Your task to perform on an android device: turn off improve location accuracy Image 0: 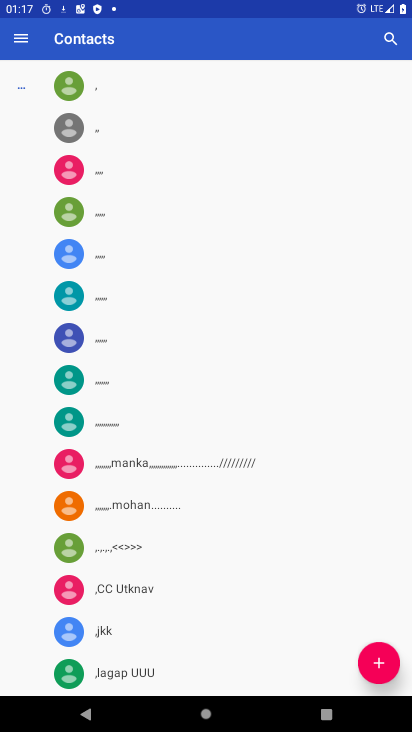
Step 0: press home button
Your task to perform on an android device: turn off improve location accuracy Image 1: 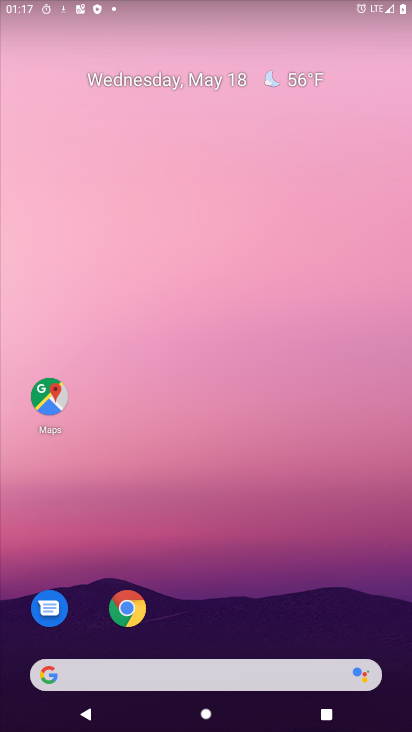
Step 1: drag from (237, 696) to (181, 157)
Your task to perform on an android device: turn off improve location accuracy Image 2: 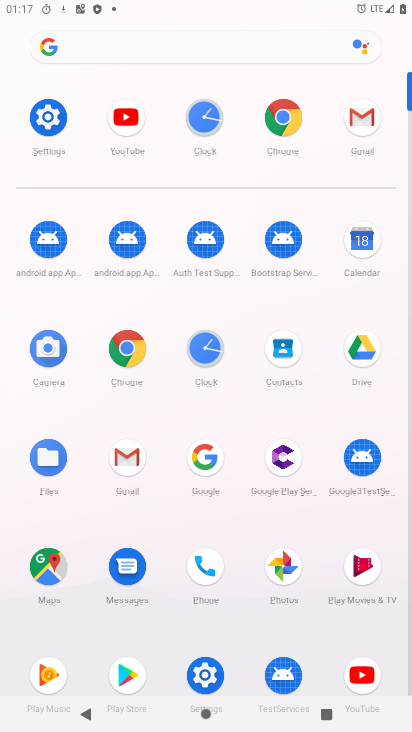
Step 2: click (210, 665)
Your task to perform on an android device: turn off improve location accuracy Image 3: 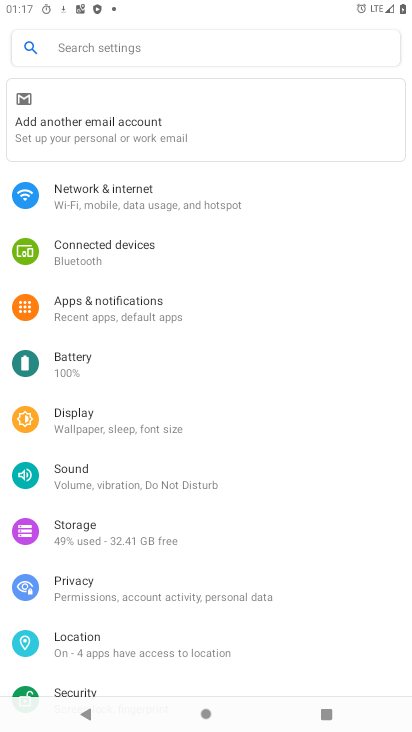
Step 3: click (151, 53)
Your task to perform on an android device: turn off improve location accuracy Image 4: 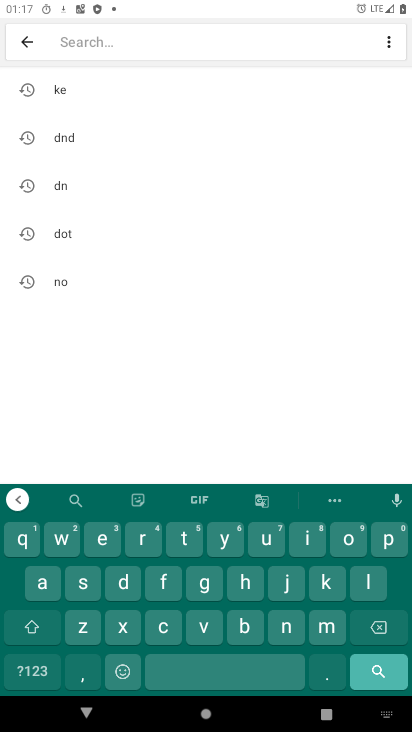
Step 4: click (376, 582)
Your task to perform on an android device: turn off improve location accuracy Image 5: 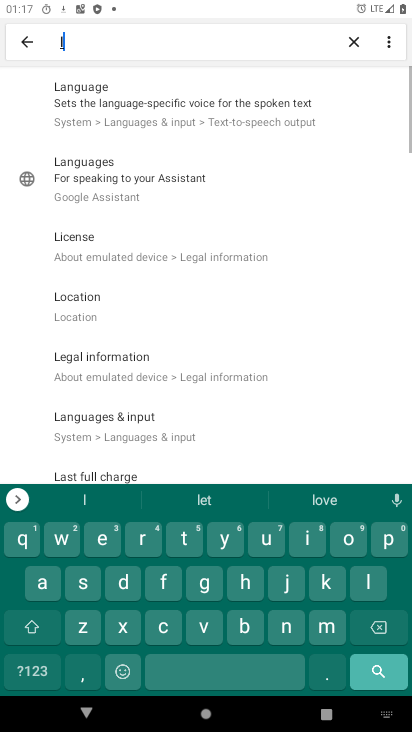
Step 5: click (346, 539)
Your task to perform on an android device: turn off improve location accuracy Image 6: 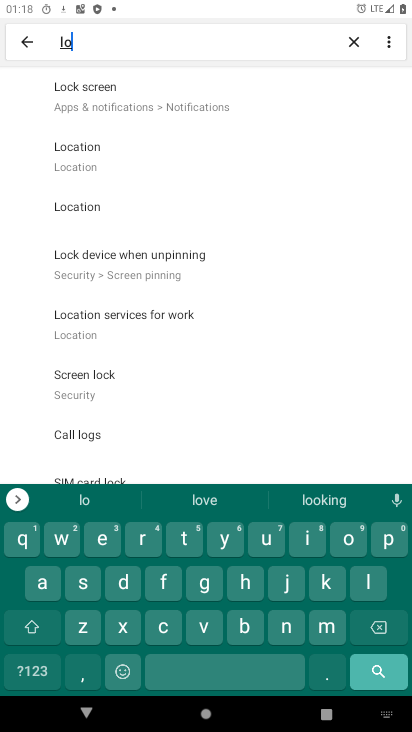
Step 6: click (163, 627)
Your task to perform on an android device: turn off improve location accuracy Image 7: 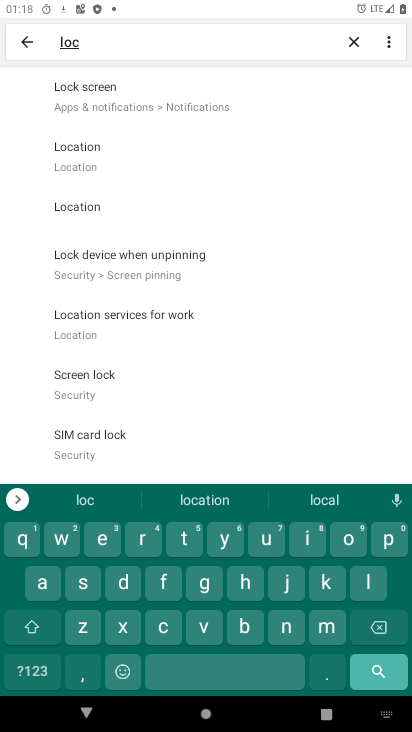
Step 7: click (140, 112)
Your task to perform on an android device: turn off improve location accuracy Image 8: 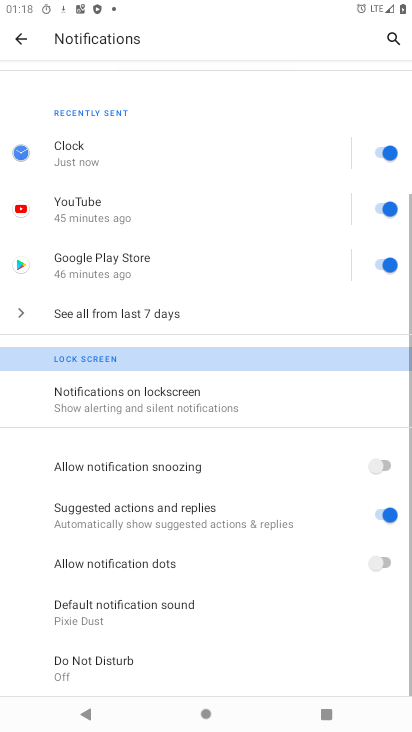
Step 8: click (120, 401)
Your task to perform on an android device: turn off improve location accuracy Image 9: 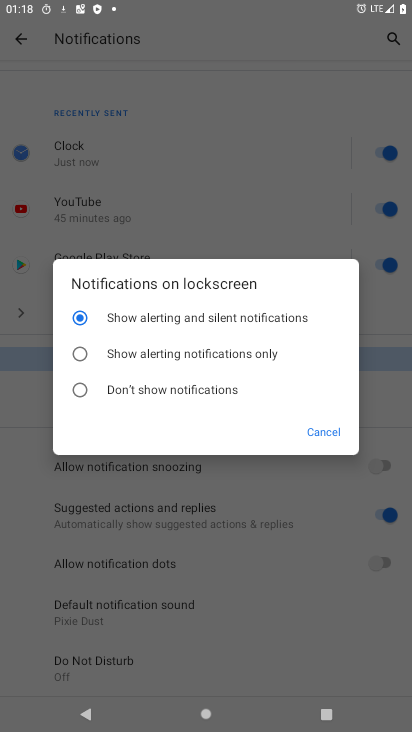
Step 9: click (117, 393)
Your task to perform on an android device: turn off improve location accuracy Image 10: 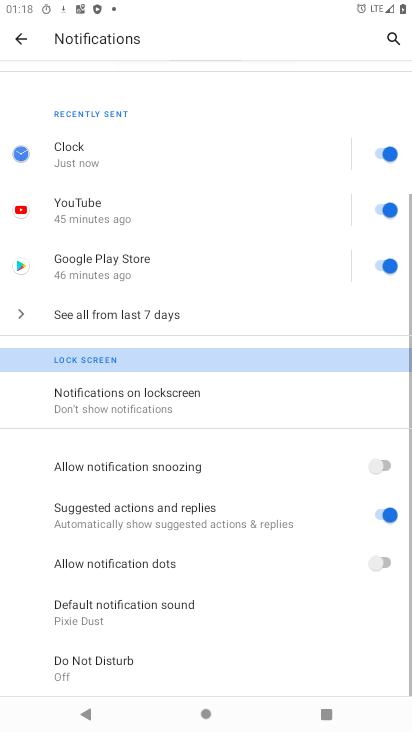
Step 10: task complete